Your task to perform on an android device: toggle priority inbox in the gmail app Image 0: 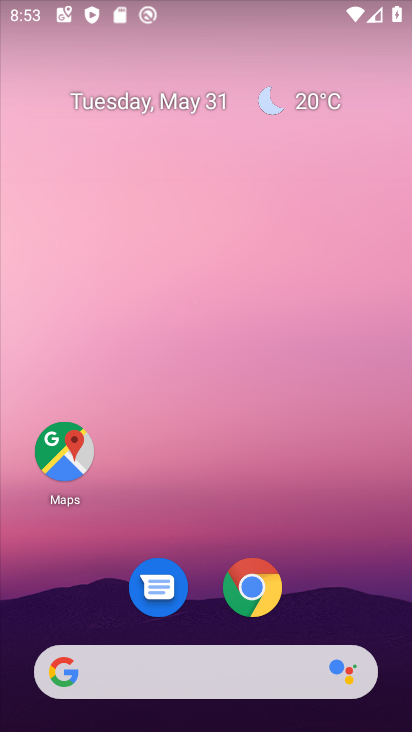
Step 0: drag from (217, 586) to (206, 107)
Your task to perform on an android device: toggle priority inbox in the gmail app Image 1: 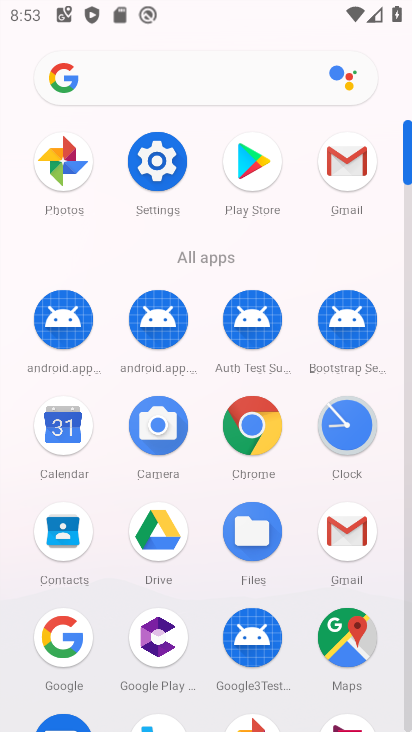
Step 1: click (346, 169)
Your task to perform on an android device: toggle priority inbox in the gmail app Image 2: 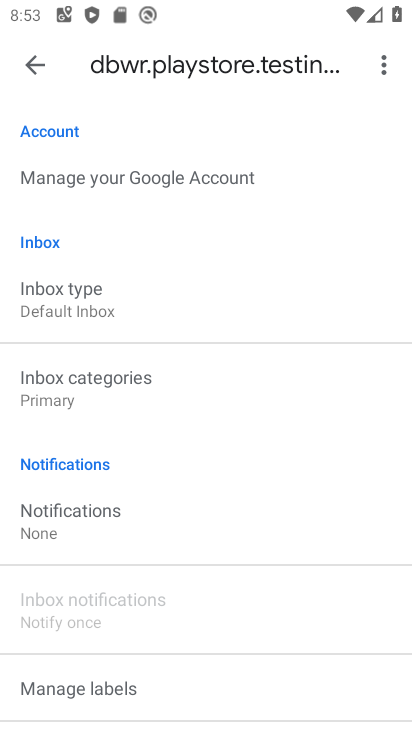
Step 2: click (111, 307)
Your task to perform on an android device: toggle priority inbox in the gmail app Image 3: 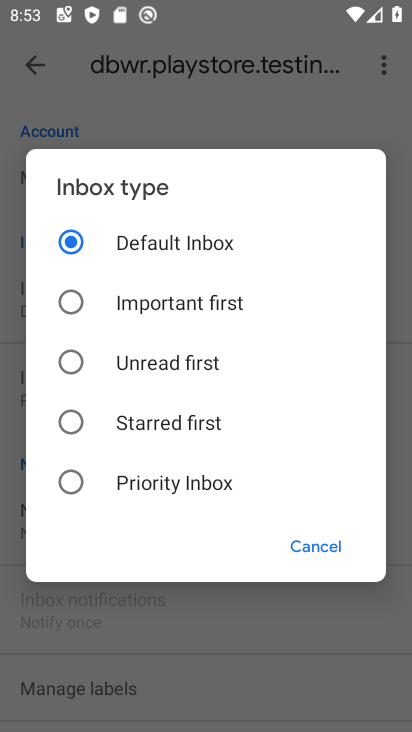
Step 3: click (161, 416)
Your task to perform on an android device: toggle priority inbox in the gmail app Image 4: 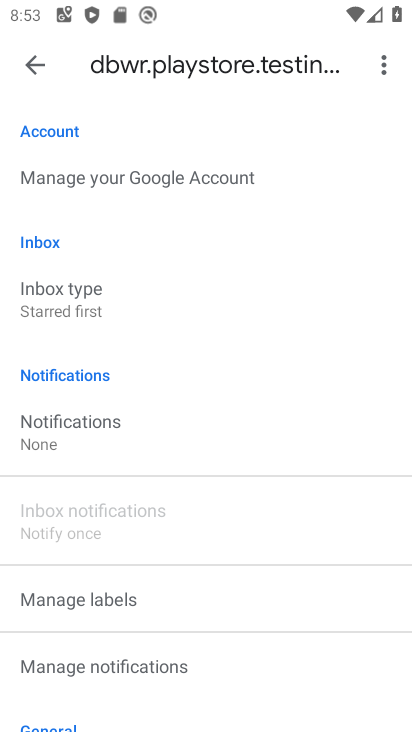
Step 4: task complete